Your task to perform on an android device: Show me the alarms in the clock app Image 0: 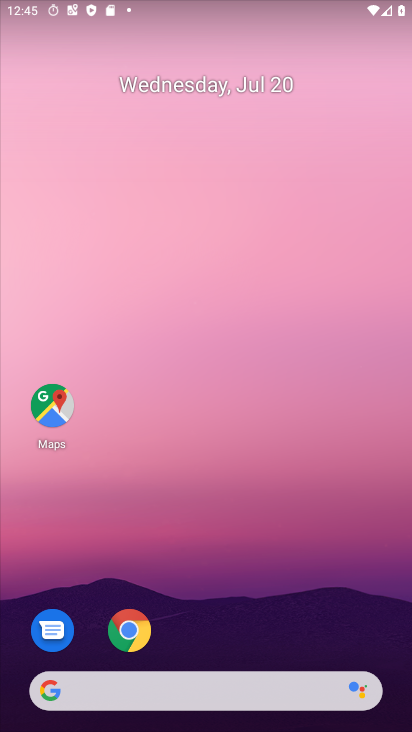
Step 0: drag from (211, 613) to (164, 294)
Your task to perform on an android device: Show me the alarms in the clock app Image 1: 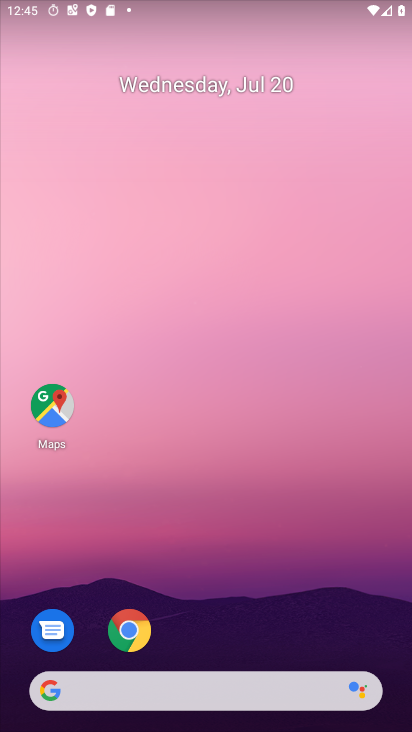
Step 1: drag from (285, 172) to (271, 44)
Your task to perform on an android device: Show me the alarms in the clock app Image 2: 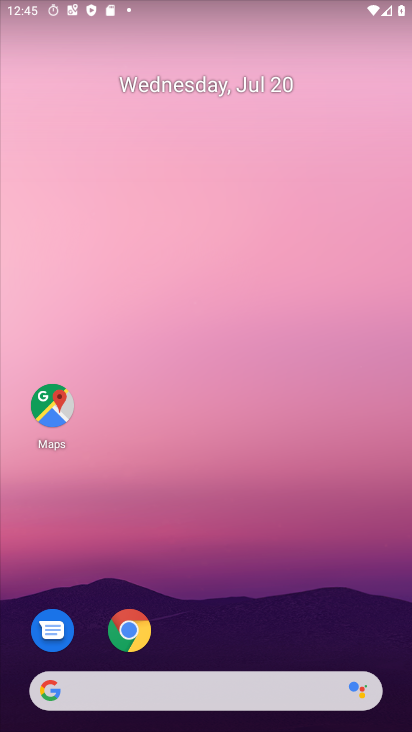
Step 2: drag from (270, 590) to (264, 38)
Your task to perform on an android device: Show me the alarms in the clock app Image 3: 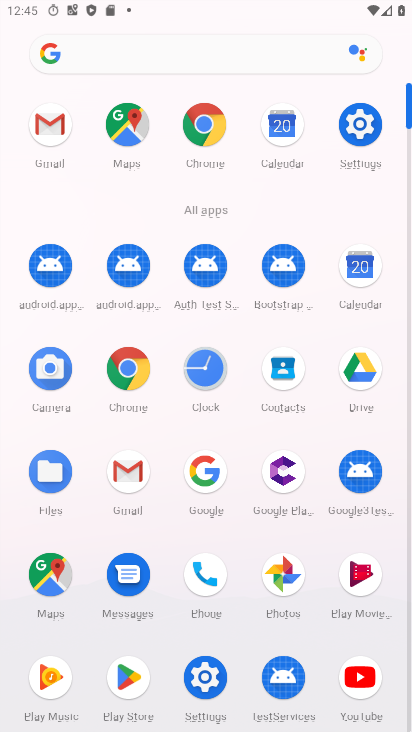
Step 3: click (204, 353)
Your task to perform on an android device: Show me the alarms in the clock app Image 4: 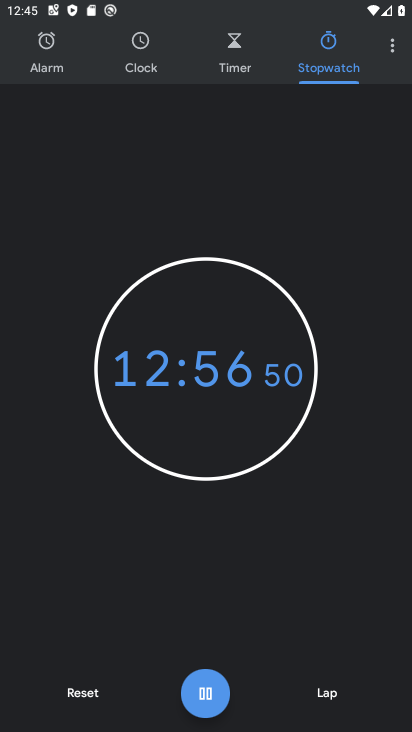
Step 4: click (43, 71)
Your task to perform on an android device: Show me the alarms in the clock app Image 5: 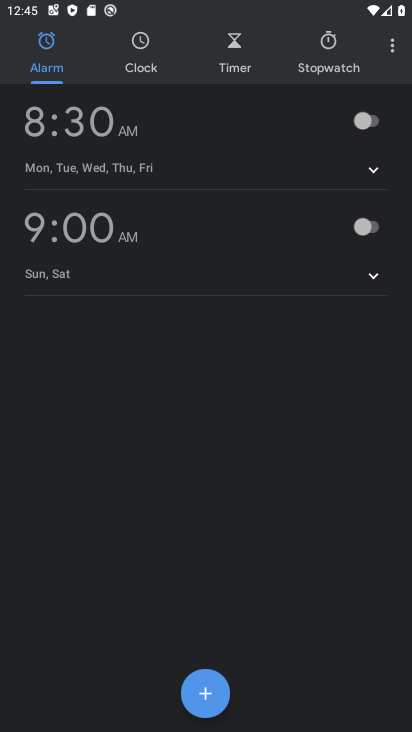
Step 5: task complete